Your task to perform on an android device: star an email in the gmail app Image 0: 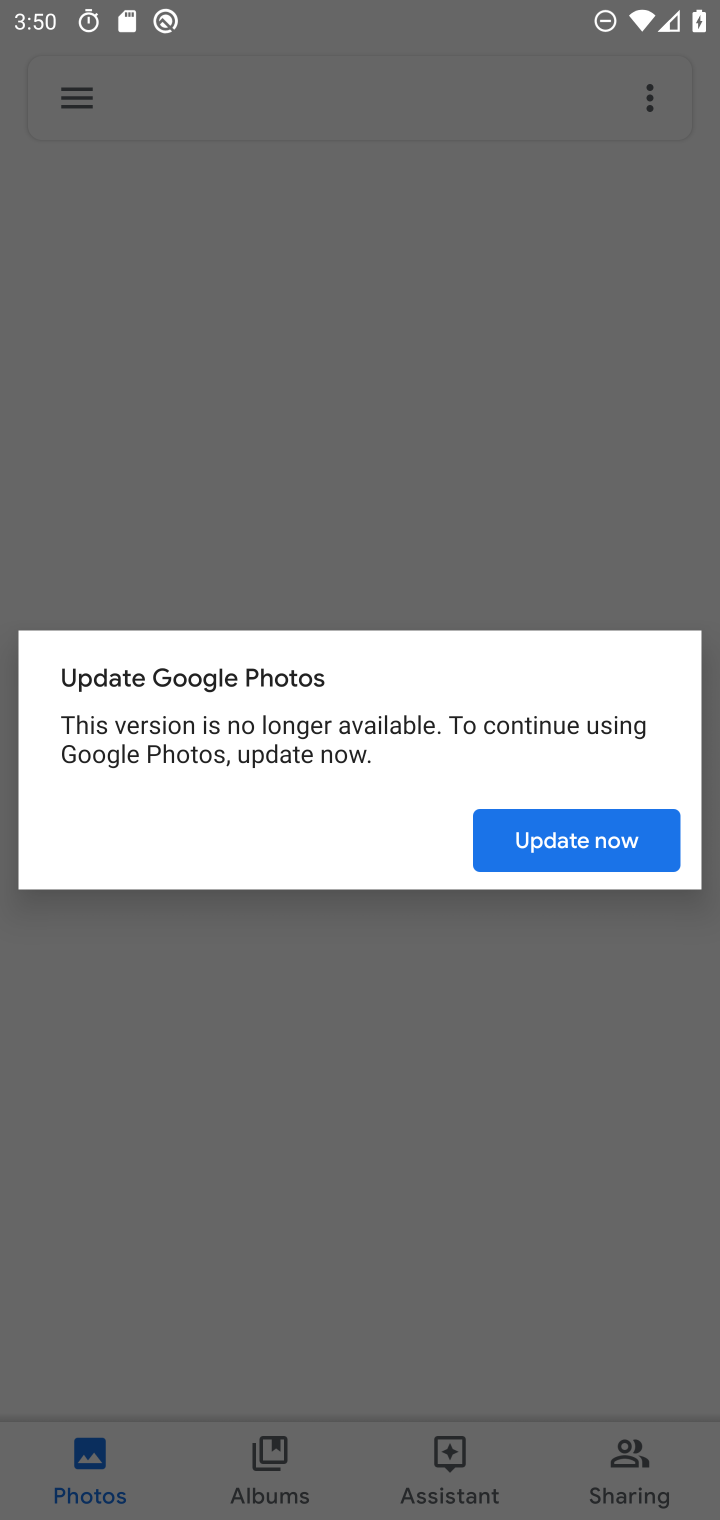
Step 0: press back button
Your task to perform on an android device: star an email in the gmail app Image 1: 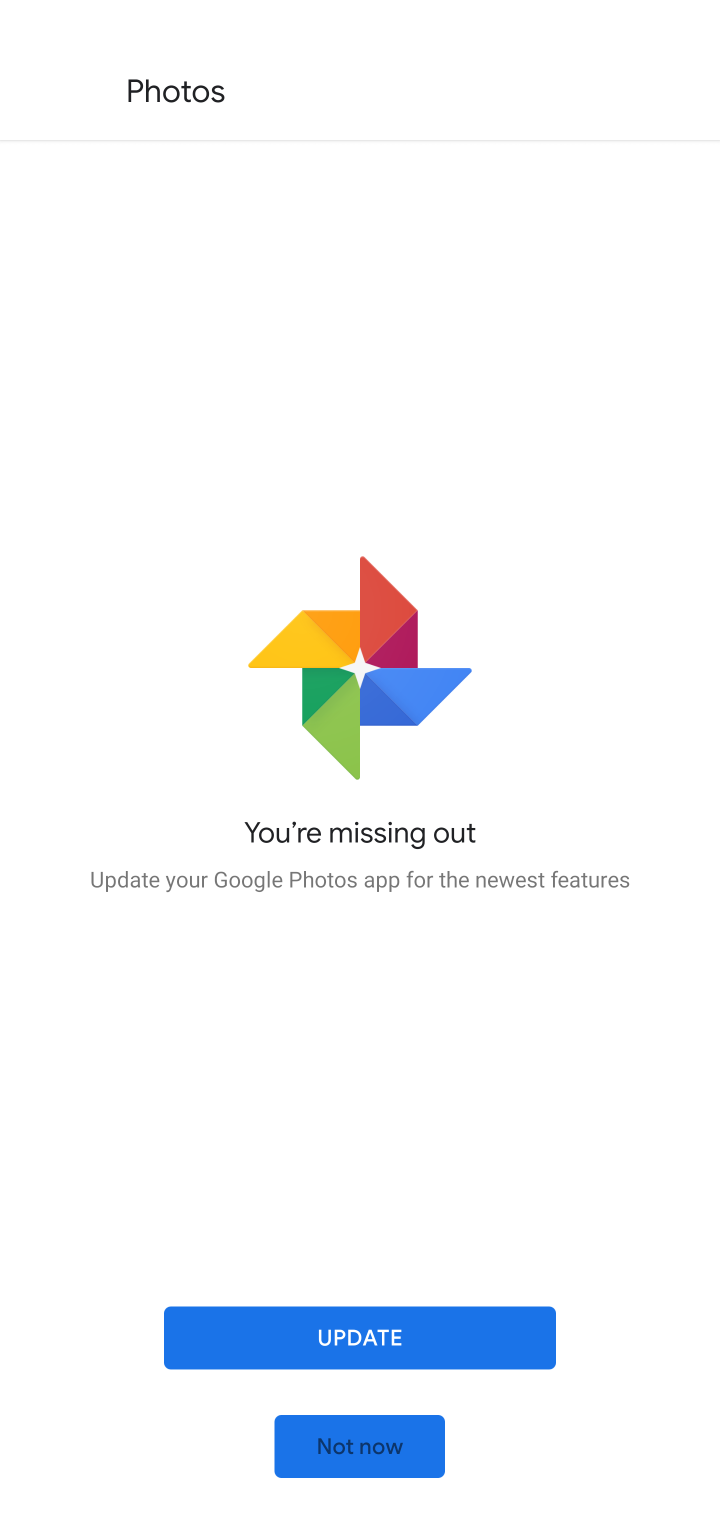
Step 1: press back button
Your task to perform on an android device: star an email in the gmail app Image 2: 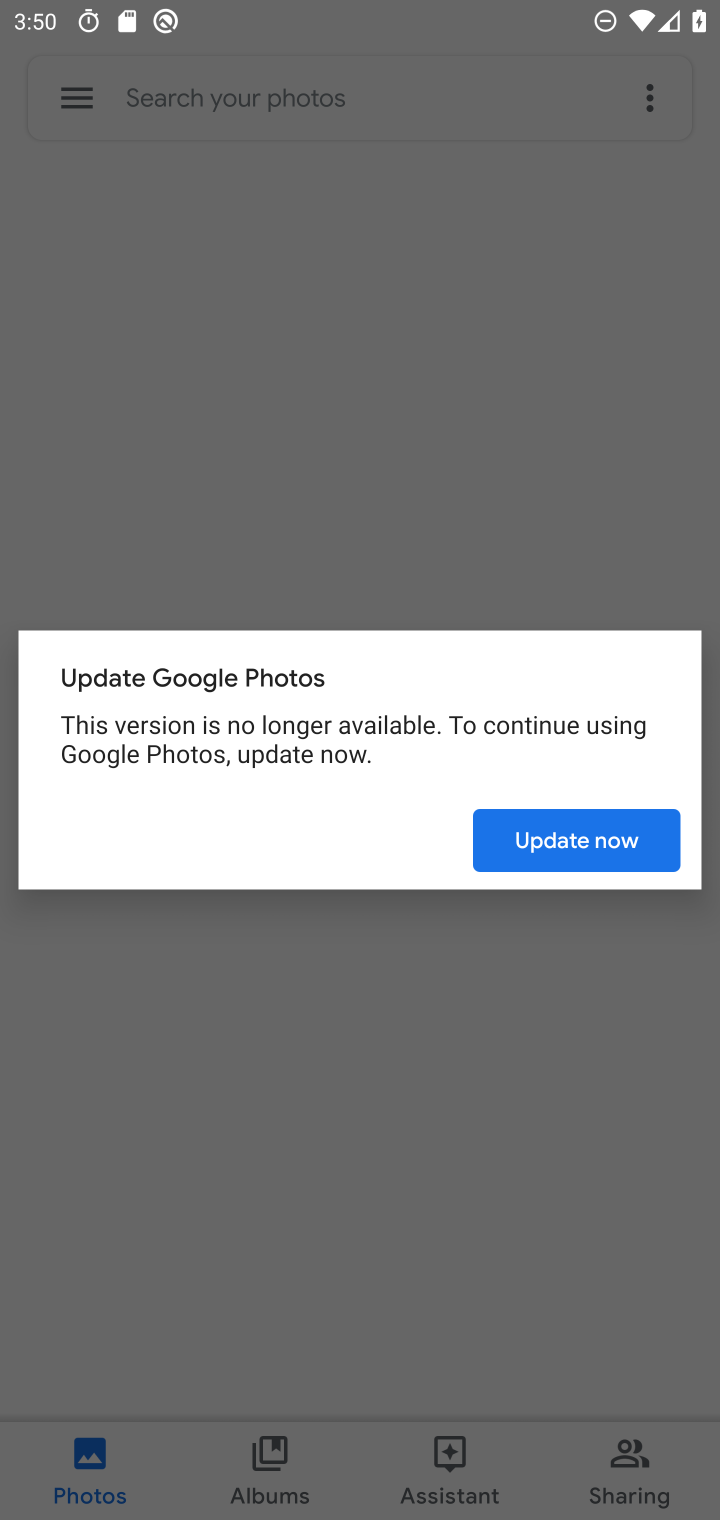
Step 2: press home button
Your task to perform on an android device: star an email in the gmail app Image 3: 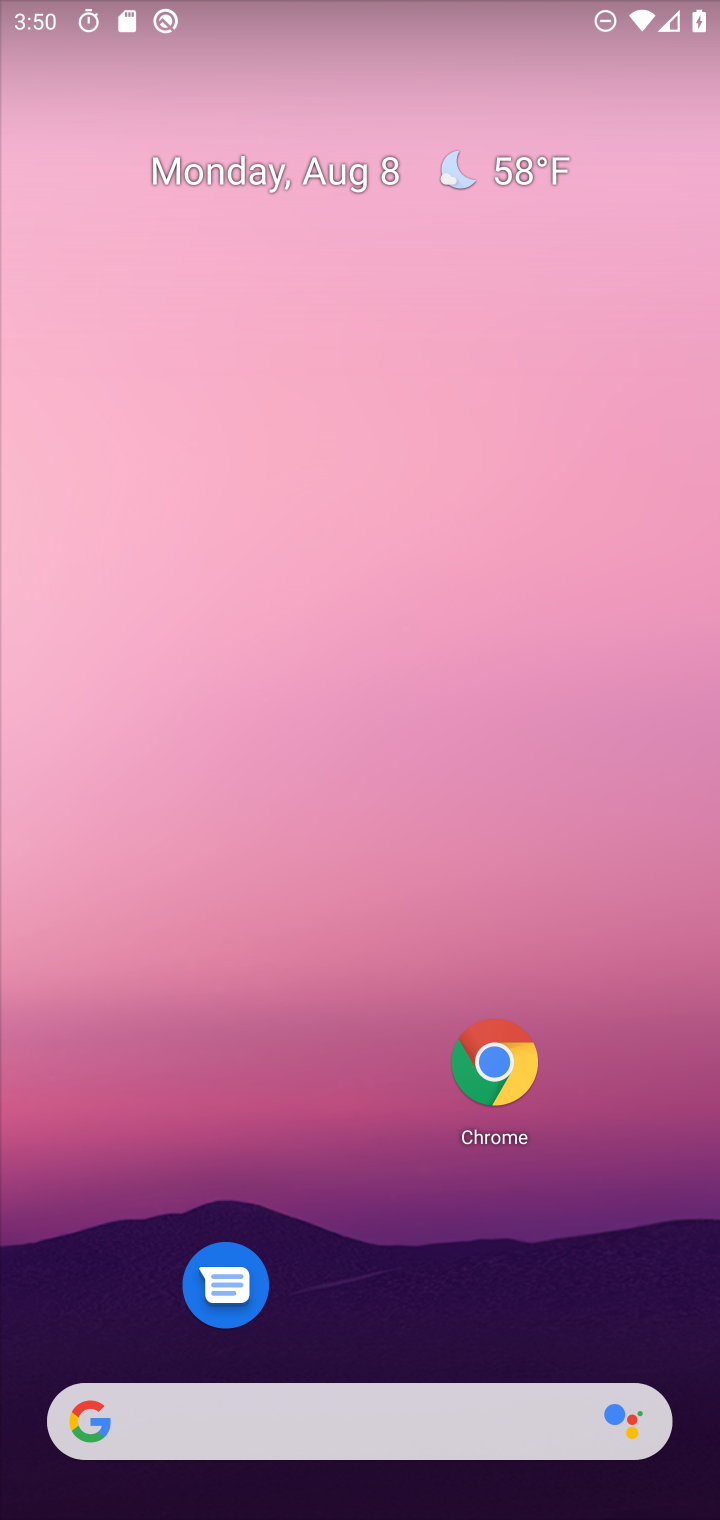
Step 3: drag from (375, 1200) to (419, 36)
Your task to perform on an android device: star an email in the gmail app Image 4: 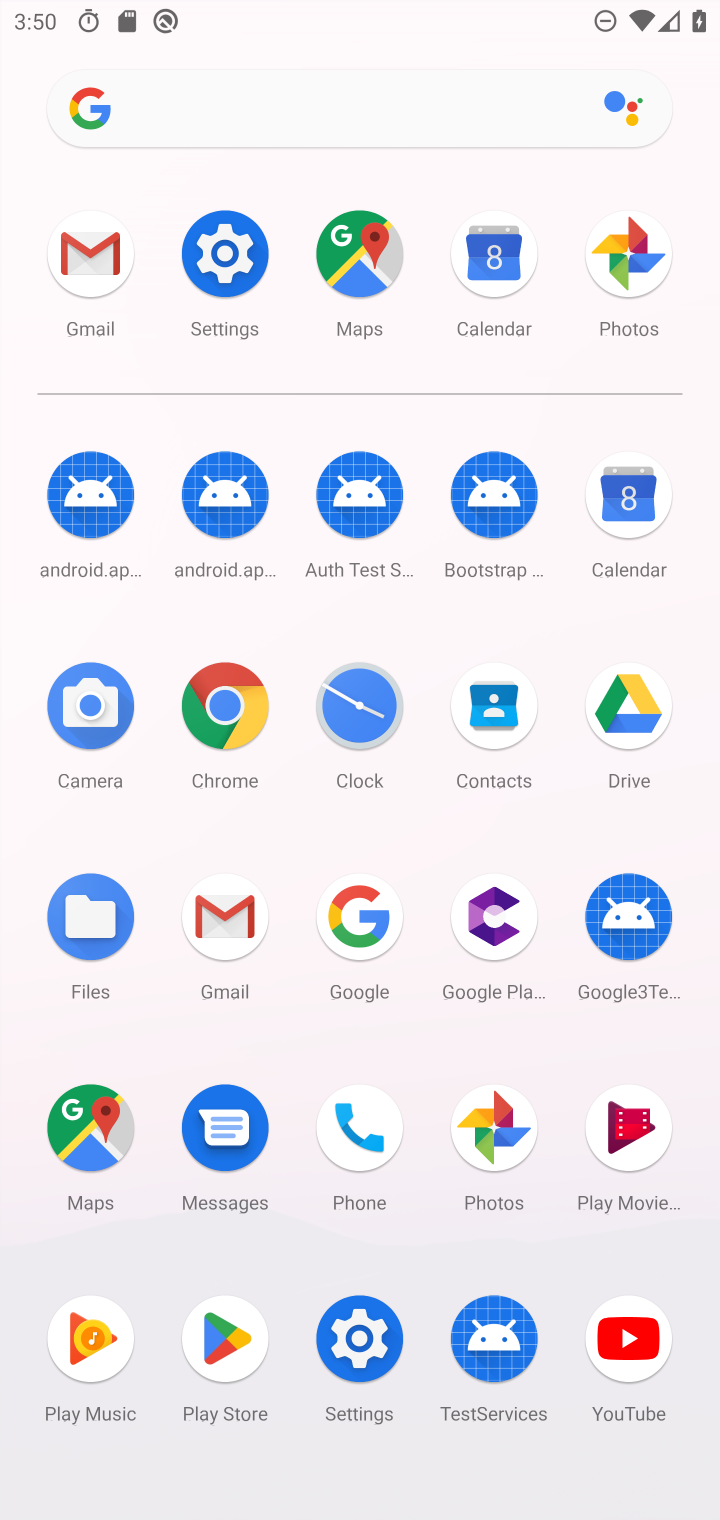
Step 4: click (86, 261)
Your task to perform on an android device: star an email in the gmail app Image 5: 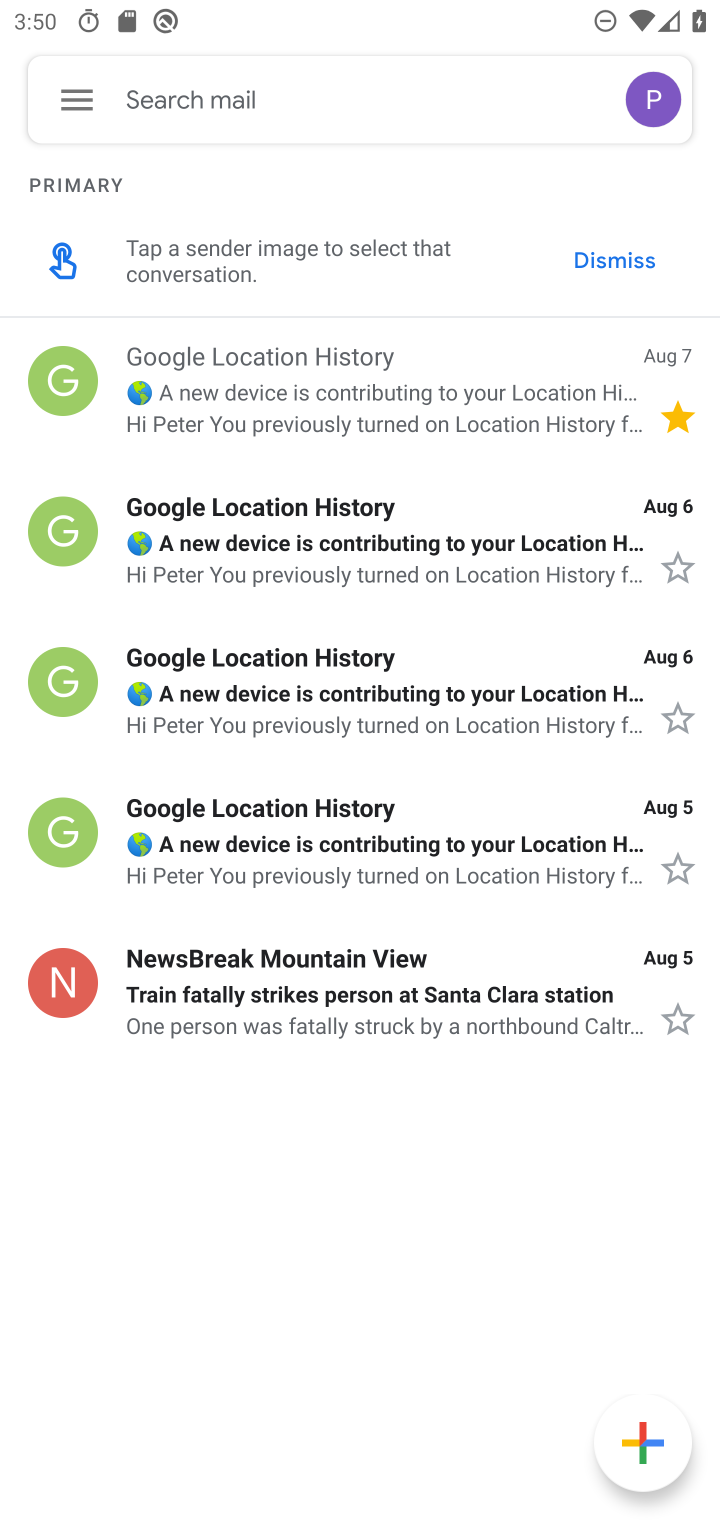
Step 5: click (684, 578)
Your task to perform on an android device: star an email in the gmail app Image 6: 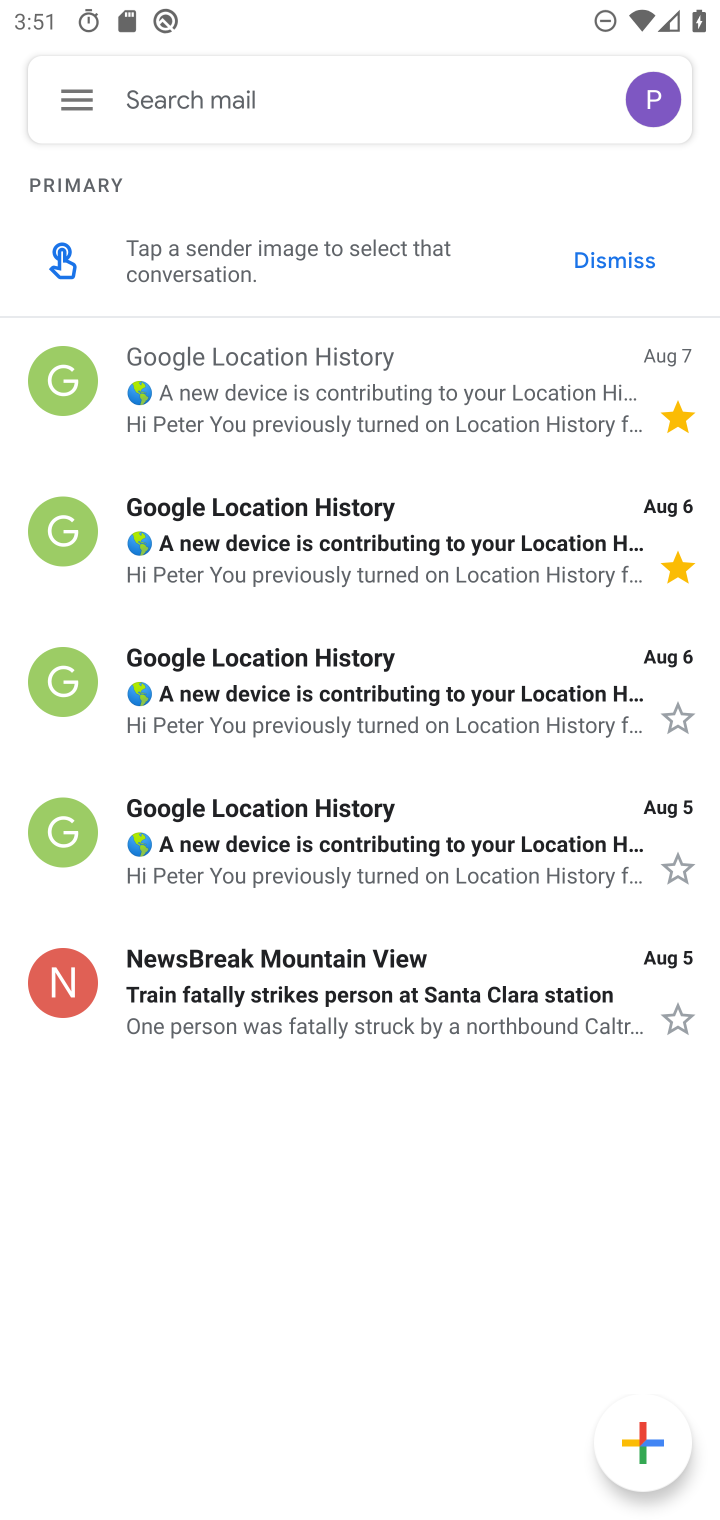
Step 6: task complete